Your task to perform on an android device: set an alarm Image 0: 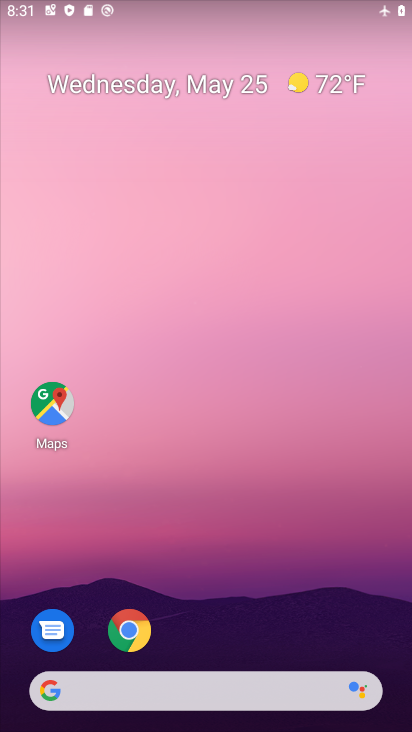
Step 0: drag from (241, 651) to (248, 226)
Your task to perform on an android device: set an alarm Image 1: 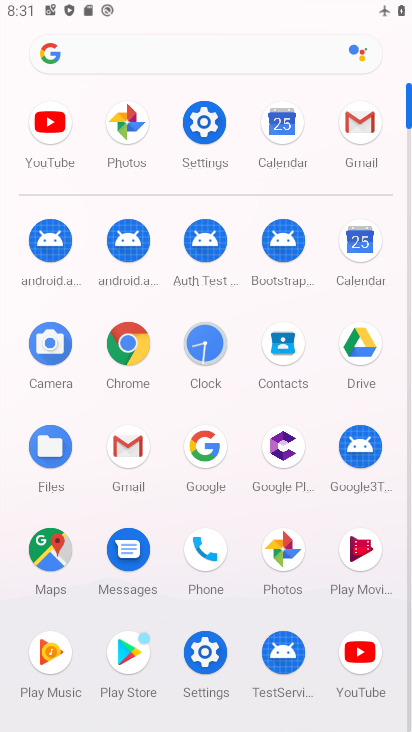
Step 1: click (219, 358)
Your task to perform on an android device: set an alarm Image 2: 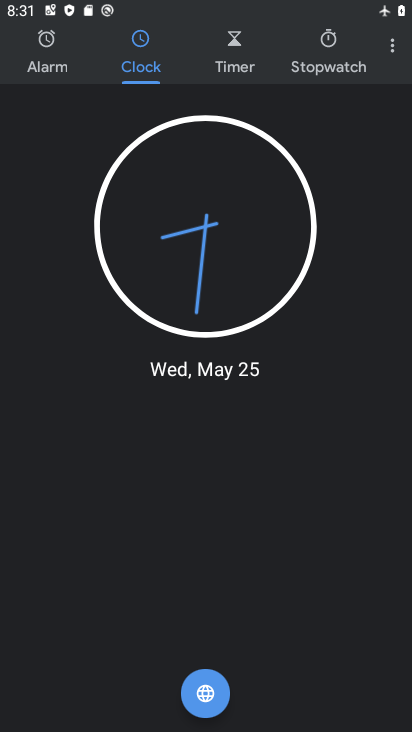
Step 2: click (61, 47)
Your task to perform on an android device: set an alarm Image 3: 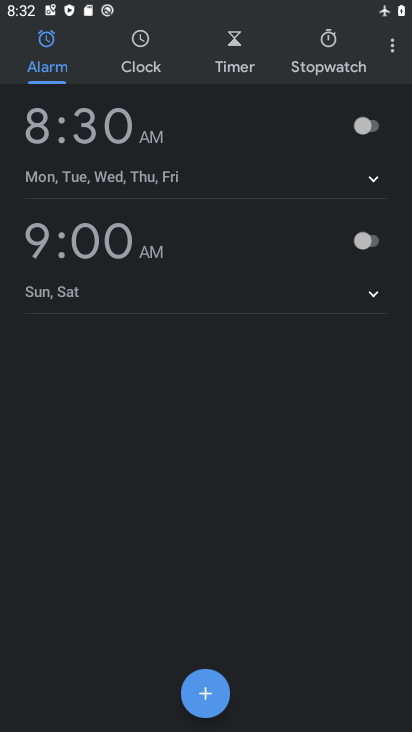
Step 3: click (379, 128)
Your task to perform on an android device: set an alarm Image 4: 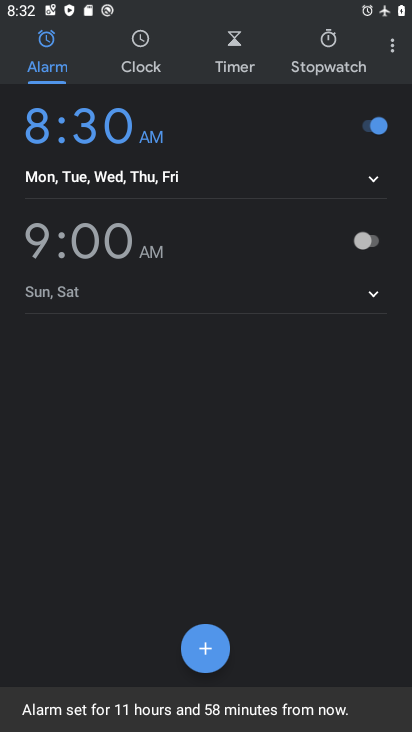
Step 4: task complete